Your task to perform on an android device: Do I have any events this weekend? Image 0: 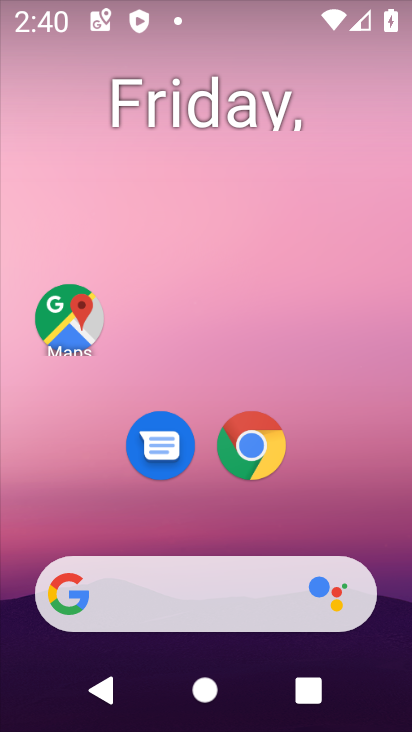
Step 0: drag from (190, 479) to (250, 109)
Your task to perform on an android device: Do I have any events this weekend? Image 1: 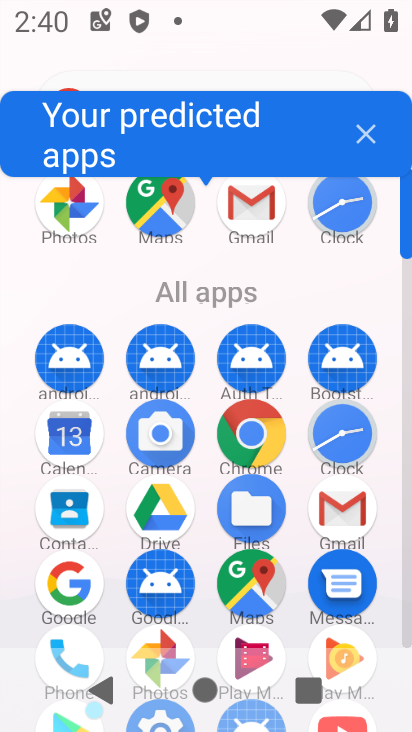
Step 1: click (73, 439)
Your task to perform on an android device: Do I have any events this weekend? Image 2: 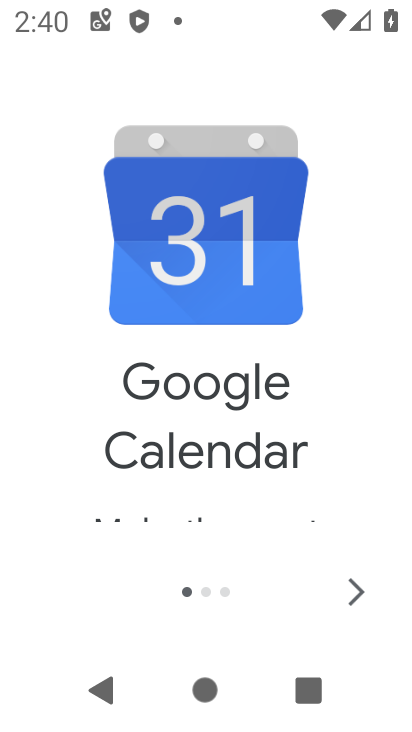
Step 2: click (350, 586)
Your task to perform on an android device: Do I have any events this weekend? Image 3: 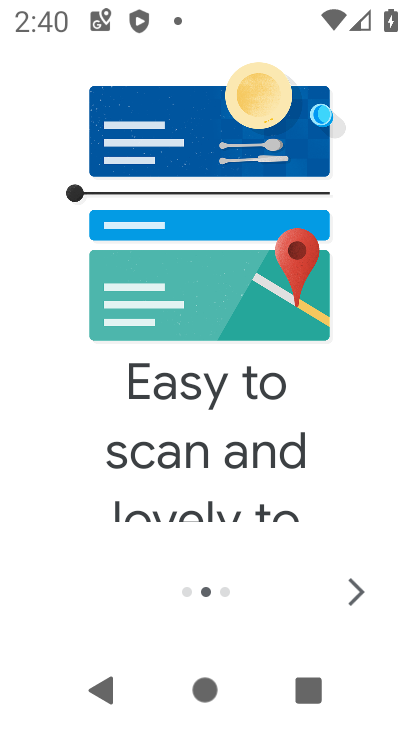
Step 3: click (350, 587)
Your task to perform on an android device: Do I have any events this weekend? Image 4: 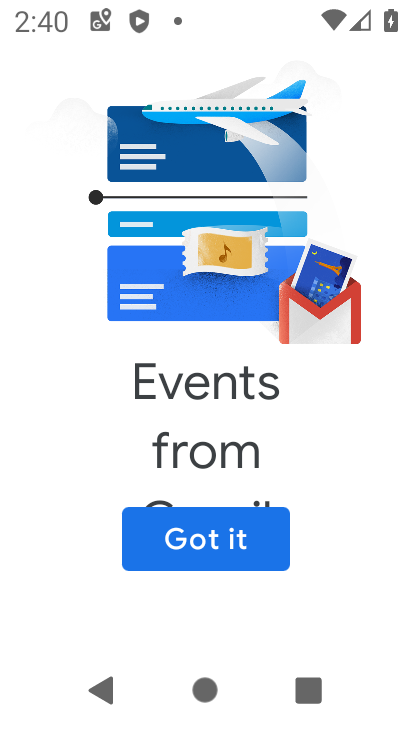
Step 4: click (263, 547)
Your task to perform on an android device: Do I have any events this weekend? Image 5: 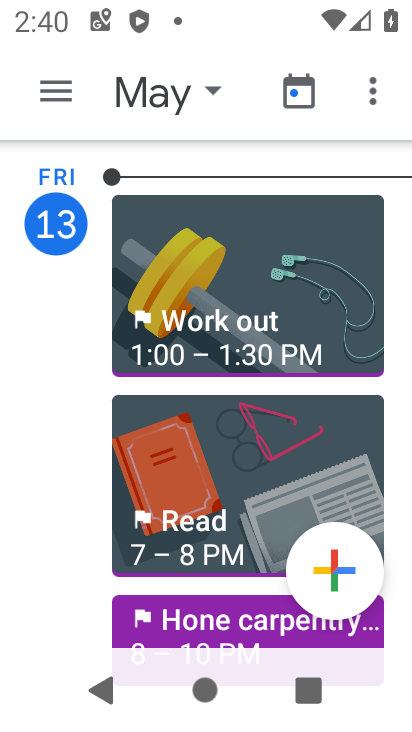
Step 5: task complete